Your task to perform on an android device: turn off translation in the chrome app Image 0: 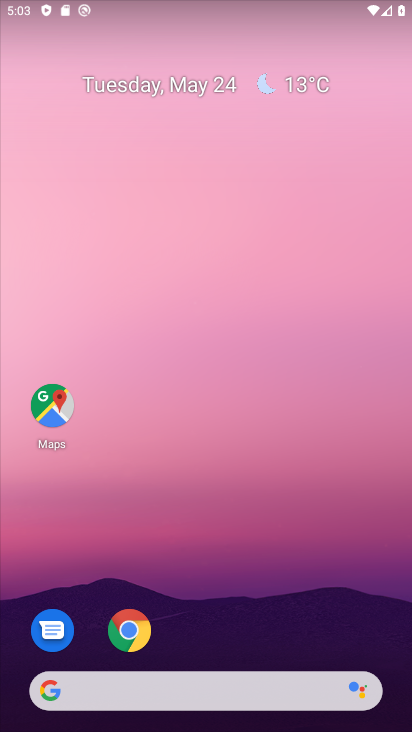
Step 0: click (129, 639)
Your task to perform on an android device: turn off translation in the chrome app Image 1: 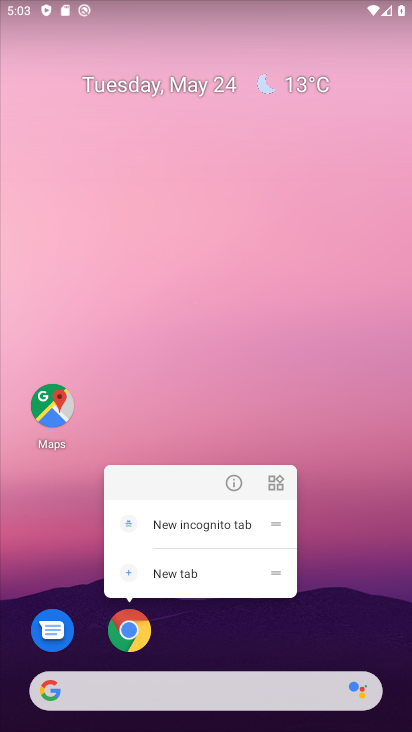
Step 1: click (129, 627)
Your task to perform on an android device: turn off translation in the chrome app Image 2: 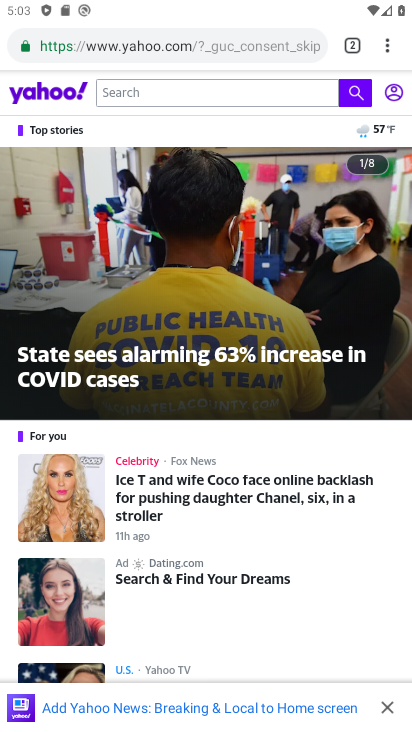
Step 2: click (392, 47)
Your task to perform on an android device: turn off translation in the chrome app Image 3: 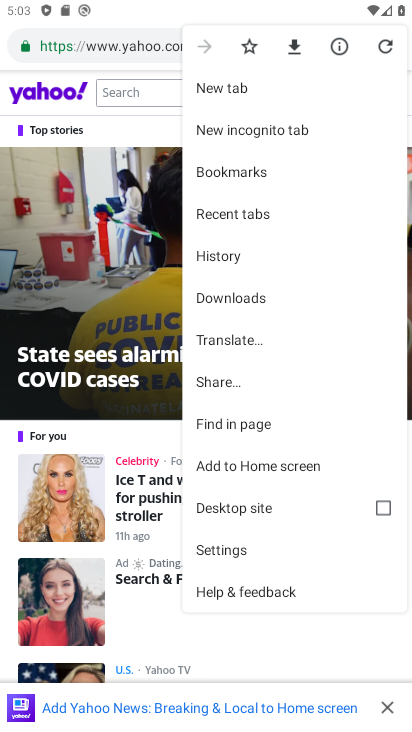
Step 3: click (232, 555)
Your task to perform on an android device: turn off translation in the chrome app Image 4: 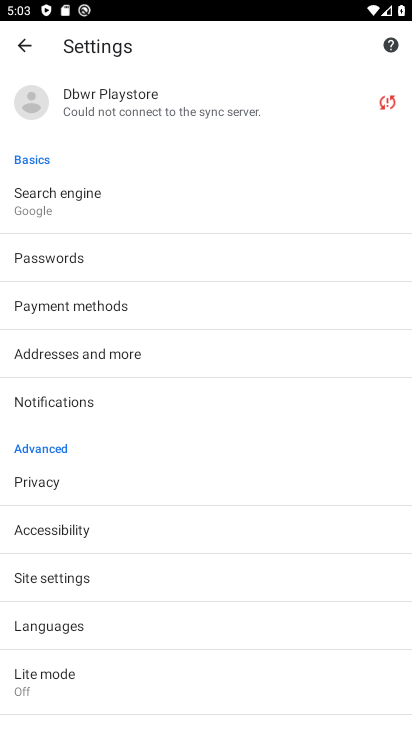
Step 4: click (53, 632)
Your task to perform on an android device: turn off translation in the chrome app Image 5: 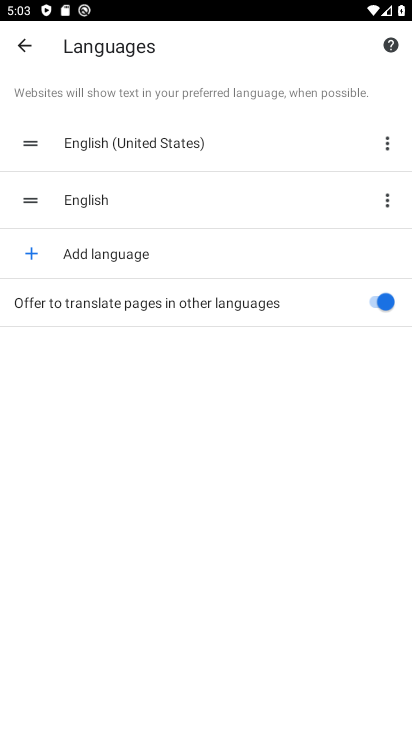
Step 5: click (375, 307)
Your task to perform on an android device: turn off translation in the chrome app Image 6: 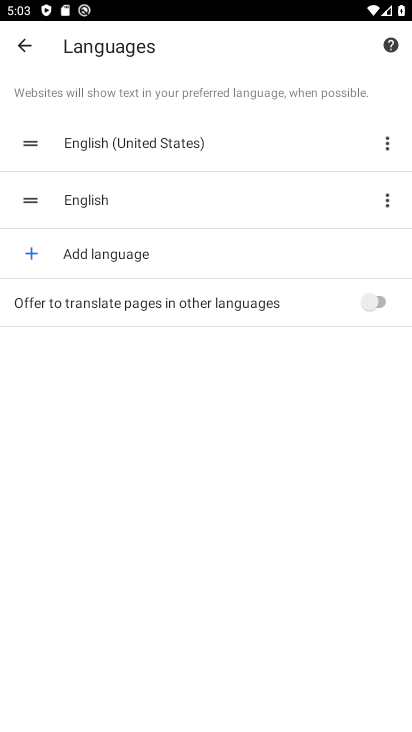
Step 6: task complete